Your task to perform on an android device: Open Google Image 0: 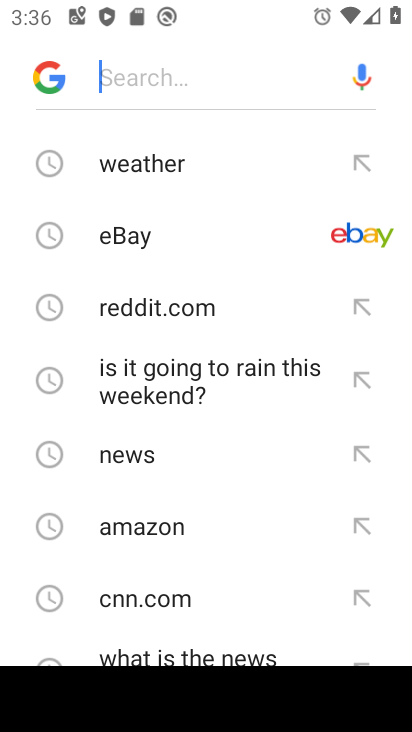
Step 0: press home button
Your task to perform on an android device: Open Google Image 1: 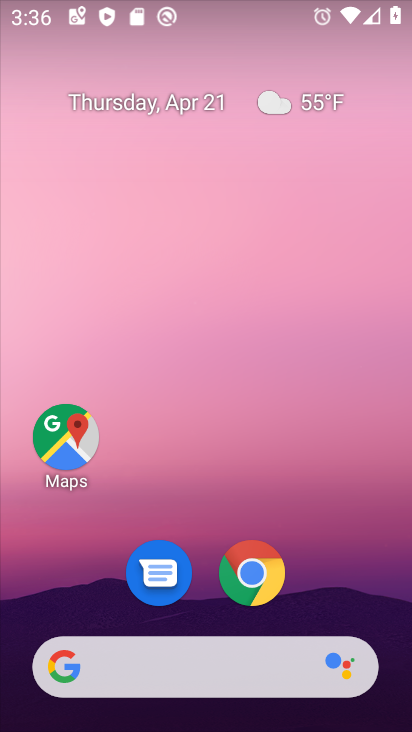
Step 1: click (256, 573)
Your task to perform on an android device: Open Google Image 2: 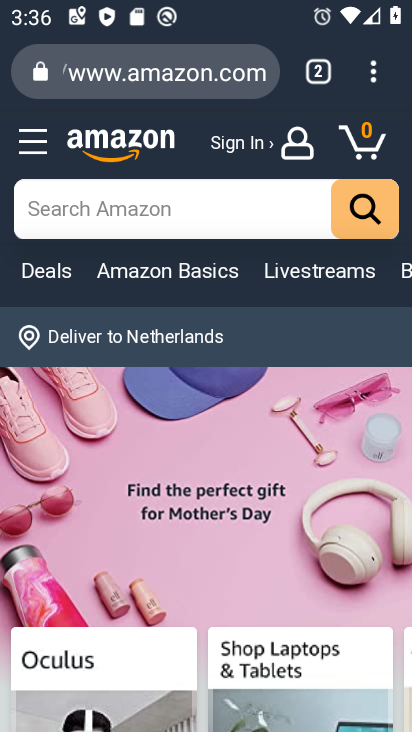
Step 2: task complete